Your task to perform on an android device: Open the phone app and click the voicemail tab. Image 0: 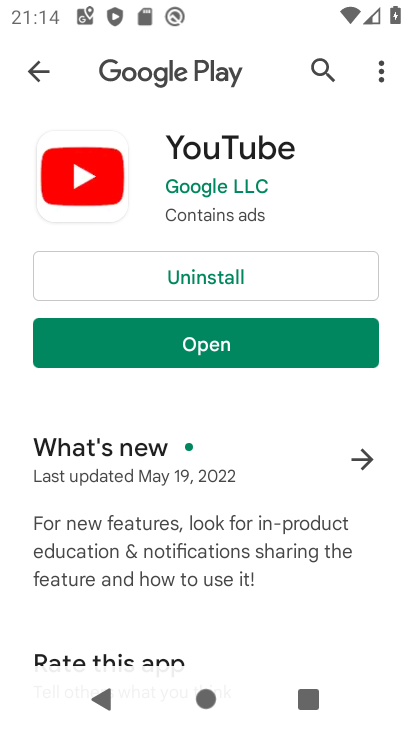
Step 0: press home button
Your task to perform on an android device: Open the phone app and click the voicemail tab. Image 1: 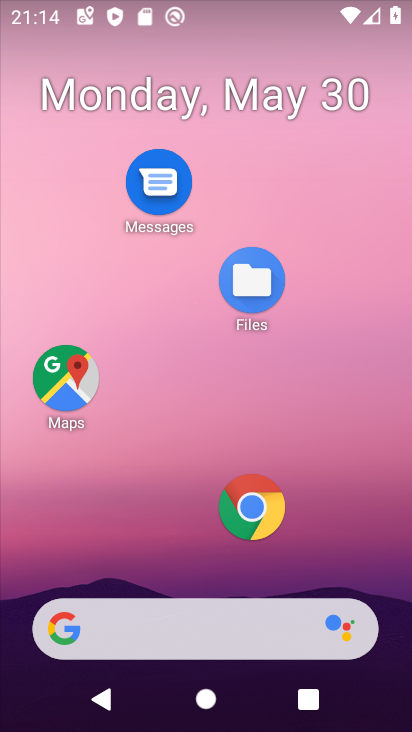
Step 1: drag from (176, 523) to (218, 15)
Your task to perform on an android device: Open the phone app and click the voicemail tab. Image 2: 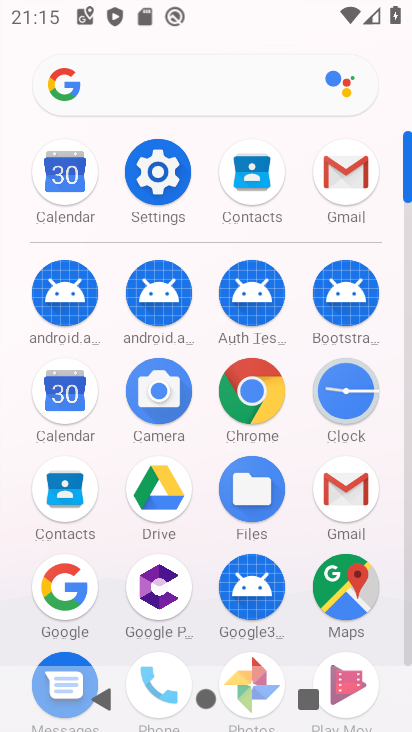
Step 2: drag from (114, 584) to (104, 237)
Your task to perform on an android device: Open the phone app and click the voicemail tab. Image 3: 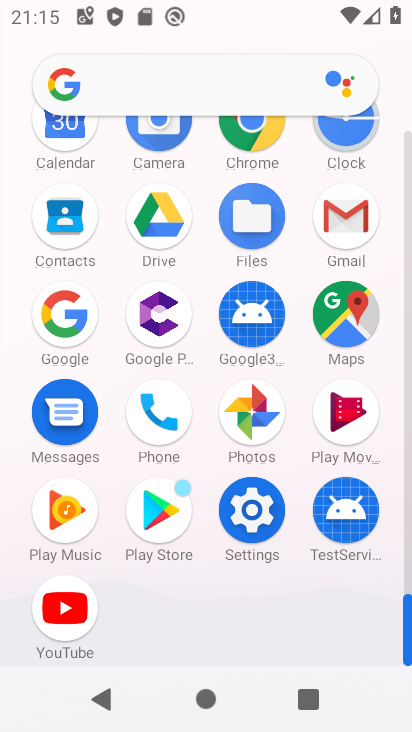
Step 3: click (167, 418)
Your task to perform on an android device: Open the phone app and click the voicemail tab. Image 4: 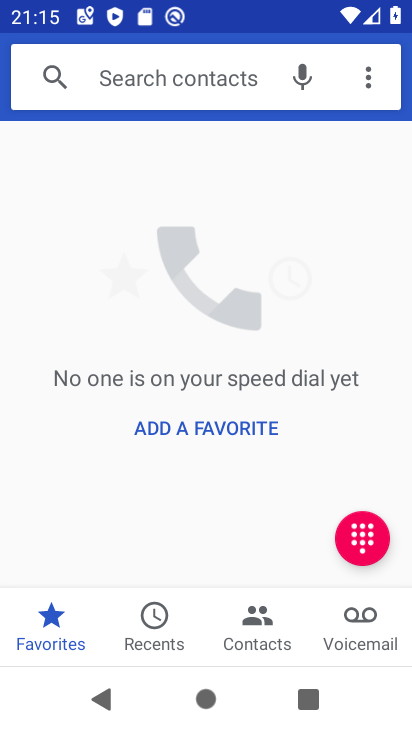
Step 4: click (375, 628)
Your task to perform on an android device: Open the phone app and click the voicemail tab. Image 5: 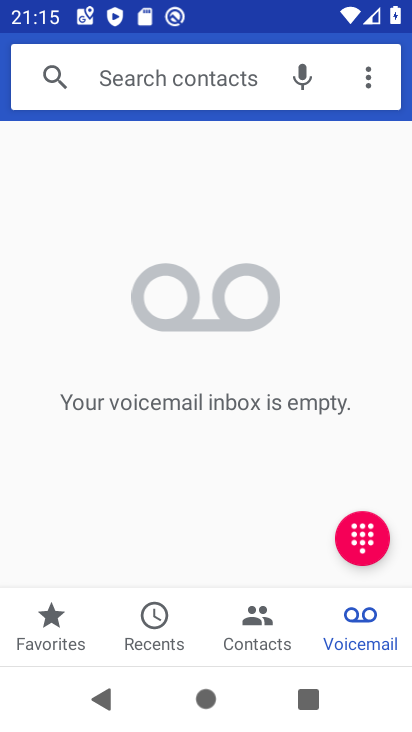
Step 5: task complete